Your task to perform on an android device: Open Google Image 0: 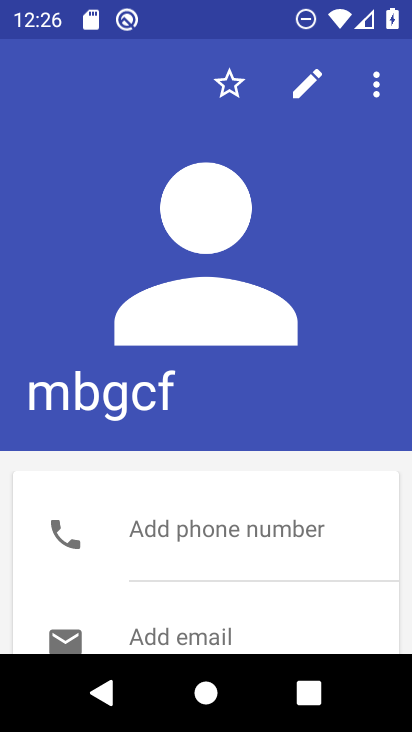
Step 0: press home button
Your task to perform on an android device: Open Google Image 1: 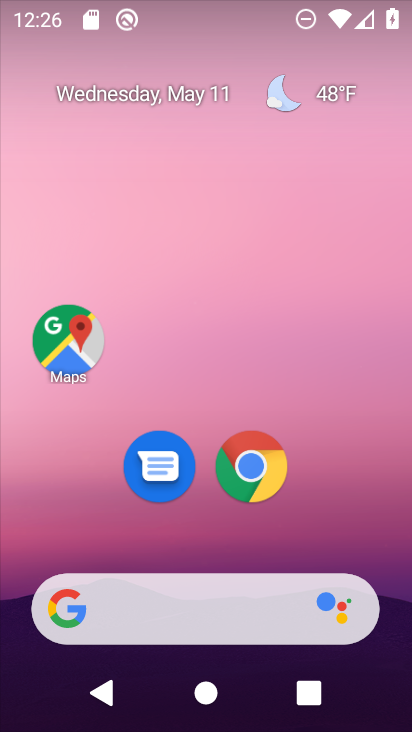
Step 1: drag from (215, 542) to (234, 25)
Your task to perform on an android device: Open Google Image 2: 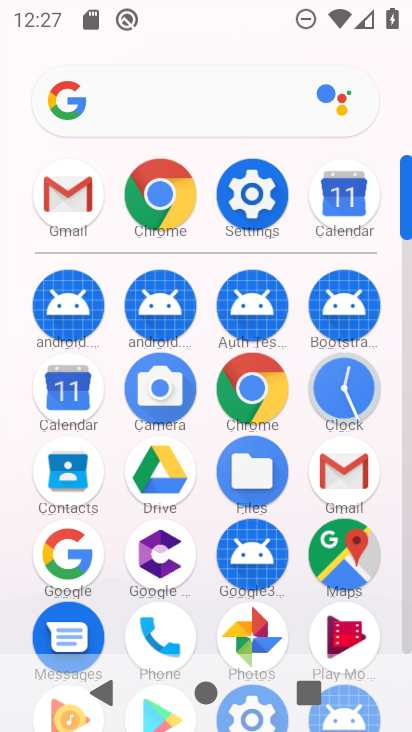
Step 2: click (67, 549)
Your task to perform on an android device: Open Google Image 3: 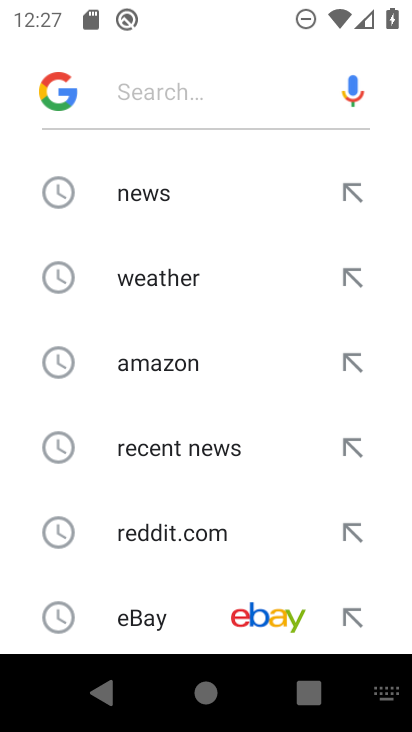
Step 3: press back button
Your task to perform on an android device: Open Google Image 4: 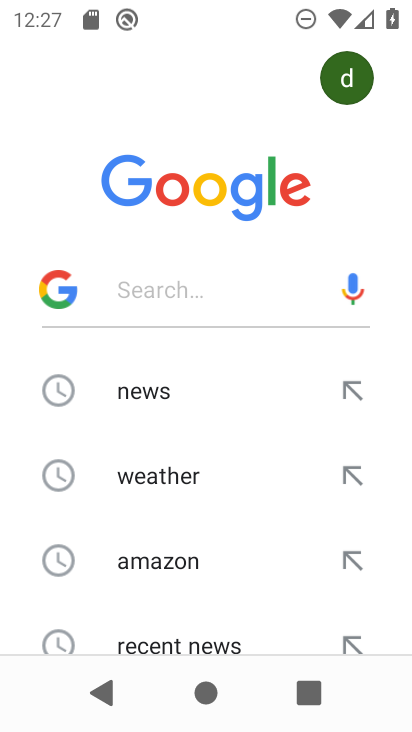
Step 4: press back button
Your task to perform on an android device: Open Google Image 5: 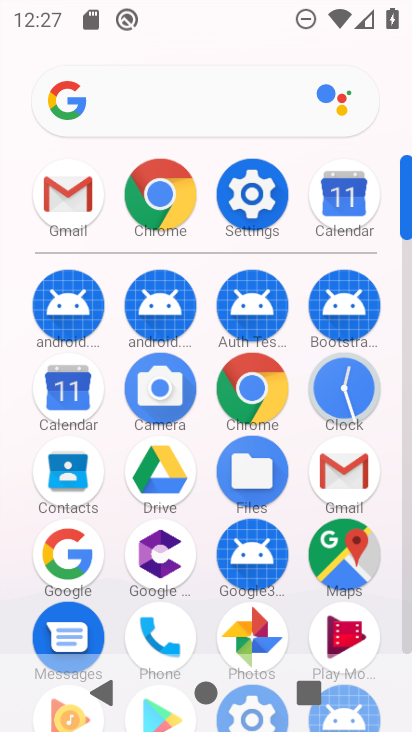
Step 5: click (67, 546)
Your task to perform on an android device: Open Google Image 6: 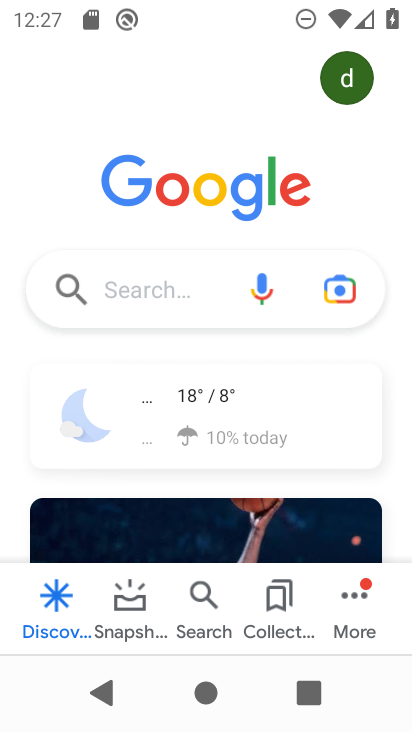
Step 6: task complete